Your task to perform on an android device: change alarm snooze length Image 0: 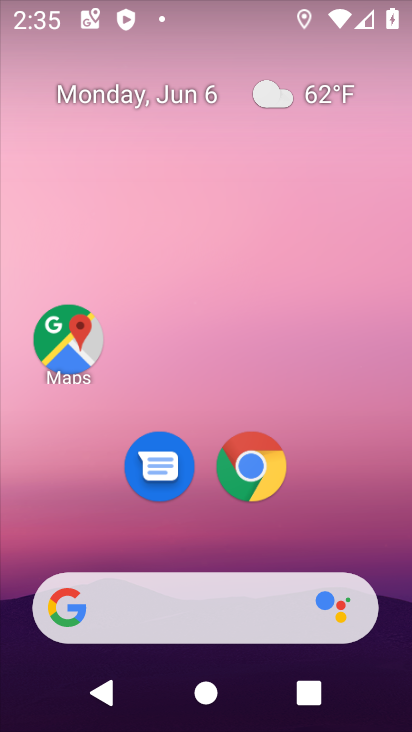
Step 0: drag from (248, 616) to (175, 148)
Your task to perform on an android device: change alarm snooze length Image 1: 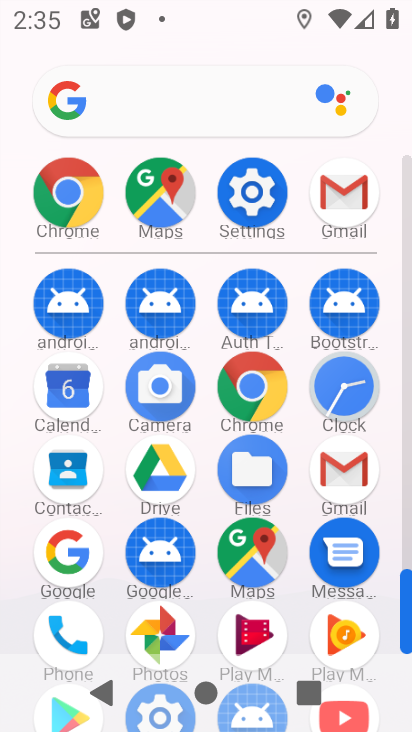
Step 1: click (344, 369)
Your task to perform on an android device: change alarm snooze length Image 2: 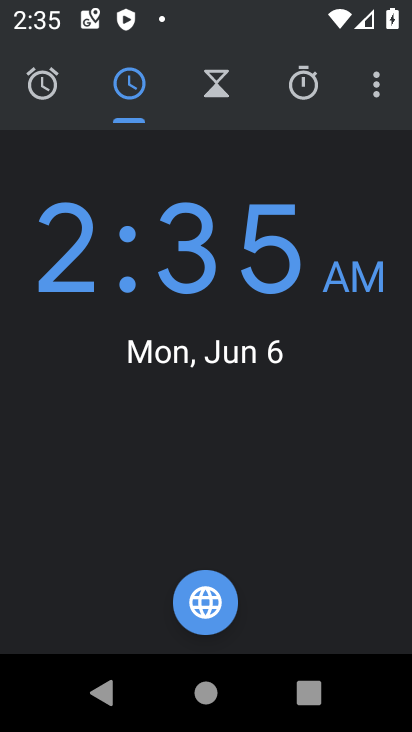
Step 2: click (376, 92)
Your task to perform on an android device: change alarm snooze length Image 3: 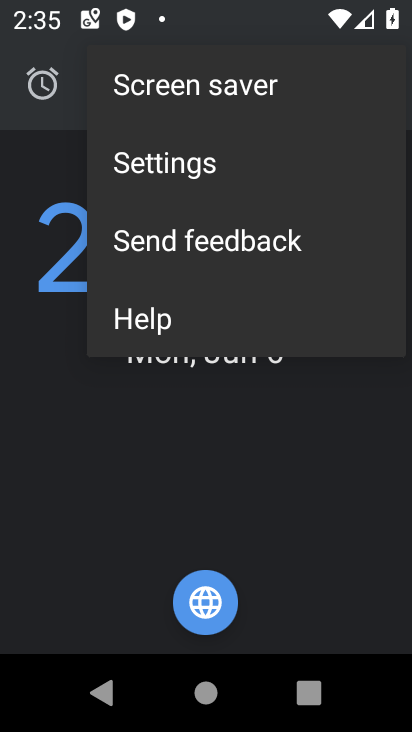
Step 3: click (195, 158)
Your task to perform on an android device: change alarm snooze length Image 4: 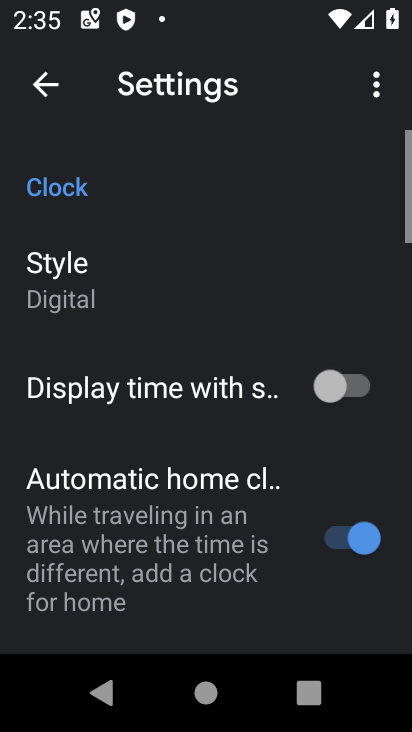
Step 4: drag from (198, 394) to (200, 194)
Your task to perform on an android device: change alarm snooze length Image 5: 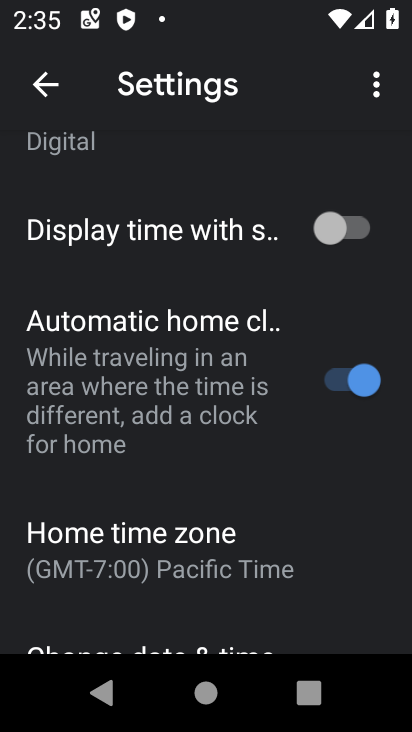
Step 5: drag from (178, 523) to (128, 231)
Your task to perform on an android device: change alarm snooze length Image 6: 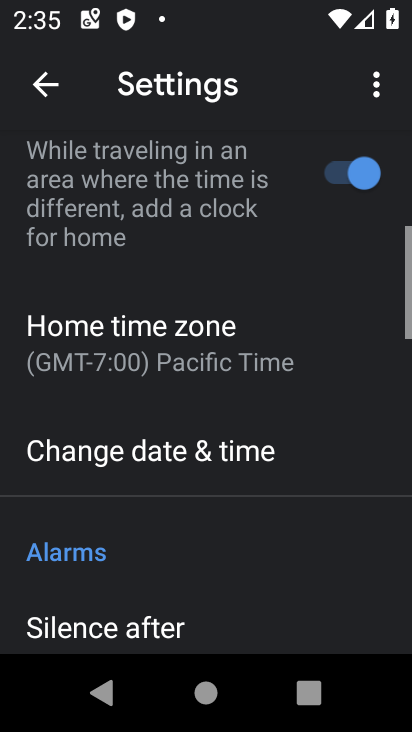
Step 6: drag from (169, 486) to (112, 268)
Your task to perform on an android device: change alarm snooze length Image 7: 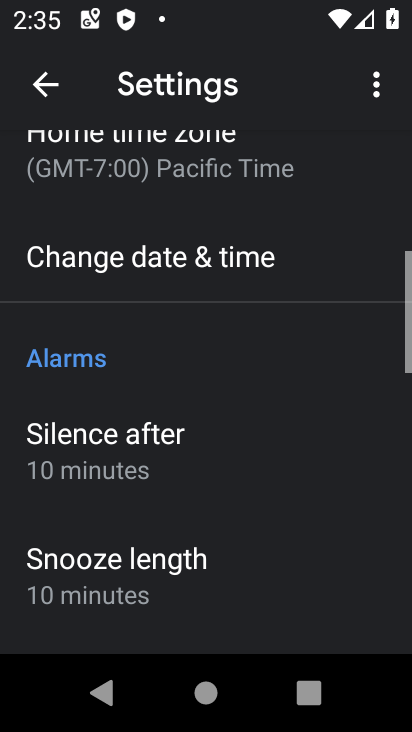
Step 7: drag from (156, 410) to (130, 234)
Your task to perform on an android device: change alarm snooze length Image 8: 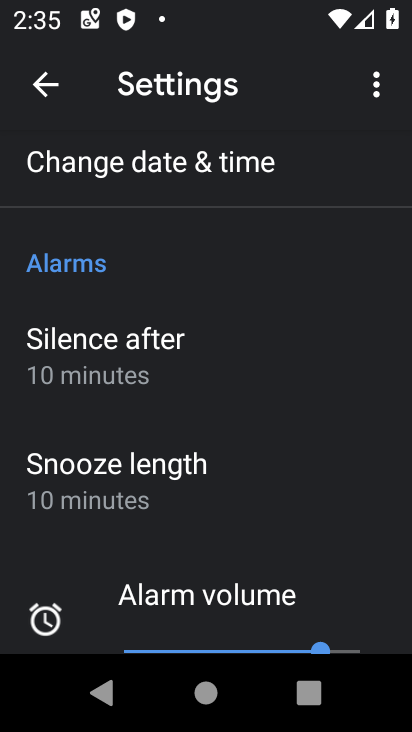
Step 8: click (111, 485)
Your task to perform on an android device: change alarm snooze length Image 9: 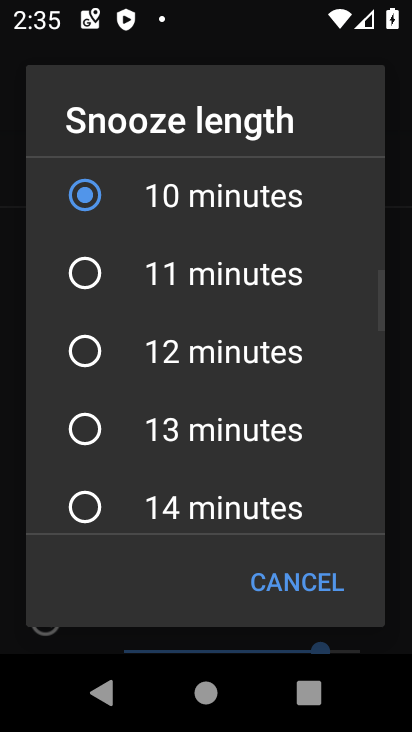
Step 9: click (87, 258)
Your task to perform on an android device: change alarm snooze length Image 10: 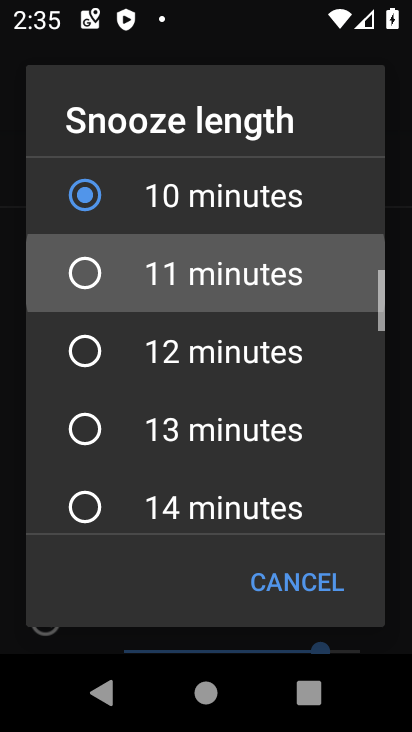
Step 10: click (87, 258)
Your task to perform on an android device: change alarm snooze length Image 11: 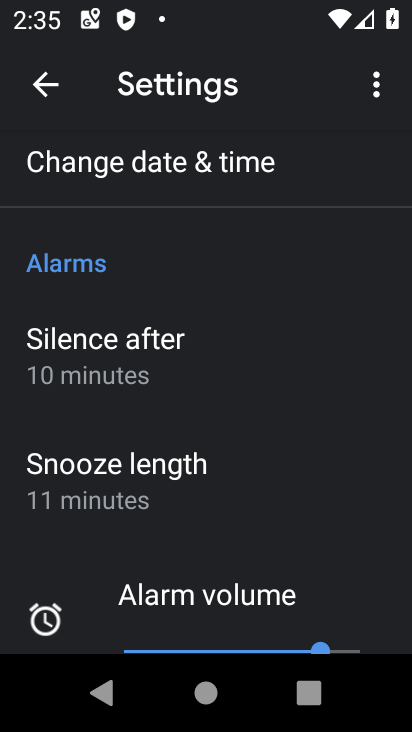
Step 11: task complete